Your task to perform on an android device: Go to Google Image 0: 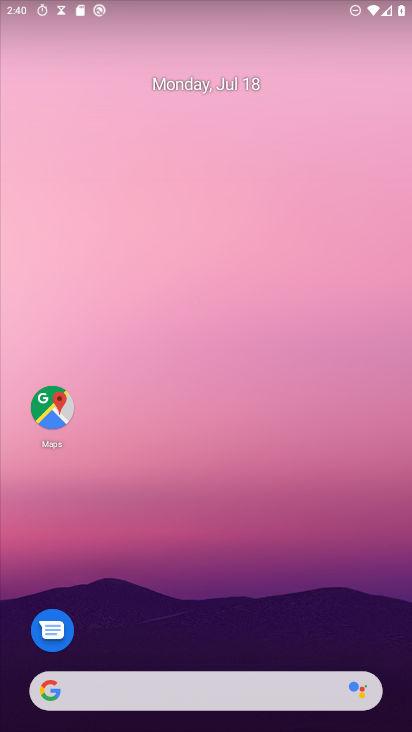
Step 0: drag from (248, 687) to (398, 212)
Your task to perform on an android device: Go to Google Image 1: 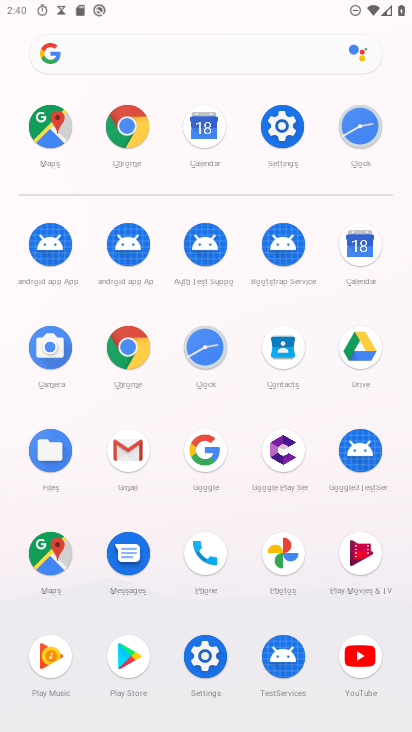
Step 1: click (138, 351)
Your task to perform on an android device: Go to Google Image 2: 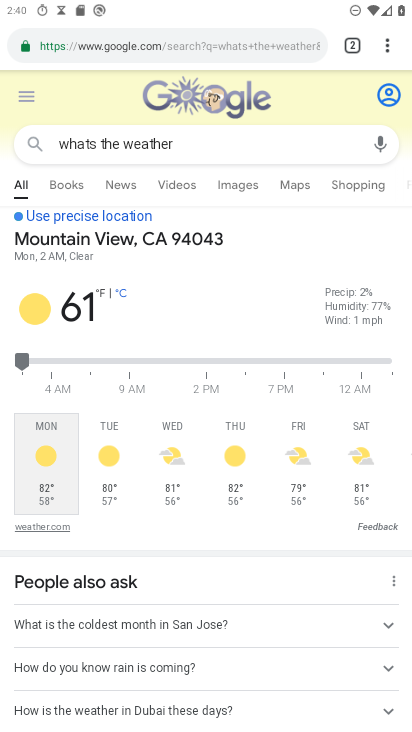
Step 2: drag from (389, 41) to (336, 68)
Your task to perform on an android device: Go to Google Image 3: 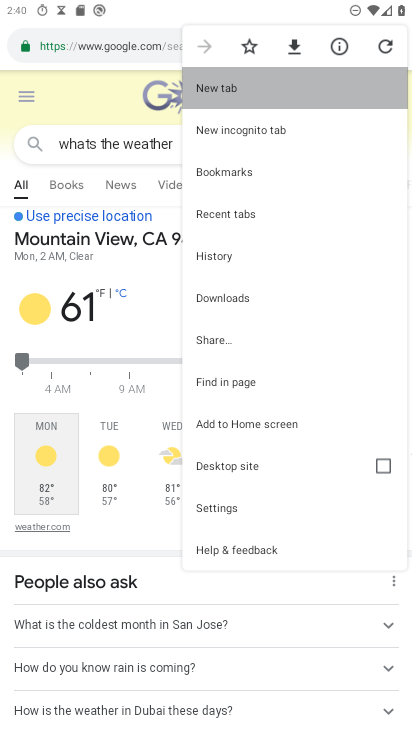
Step 3: click (332, 68)
Your task to perform on an android device: Go to Google Image 4: 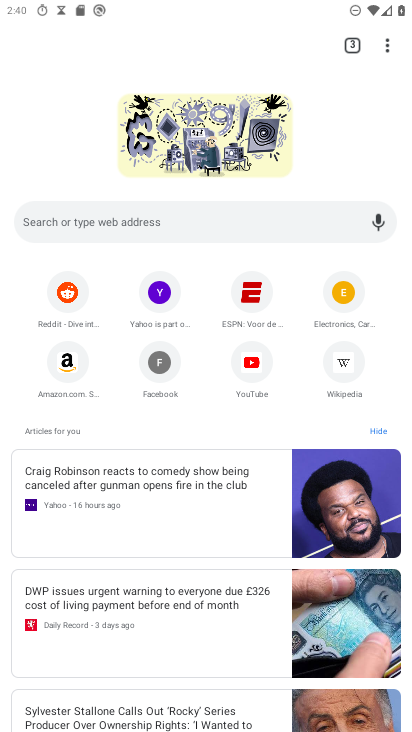
Step 4: task complete